Your task to perform on an android device: Open Chrome and go to settings Image 0: 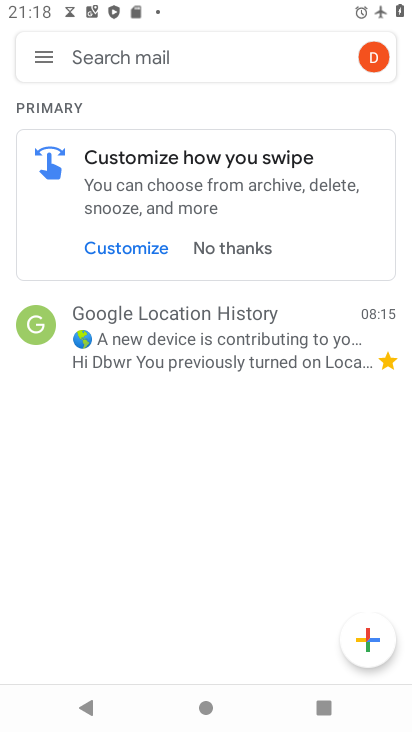
Step 0: click (50, 56)
Your task to perform on an android device: Open Chrome and go to settings Image 1: 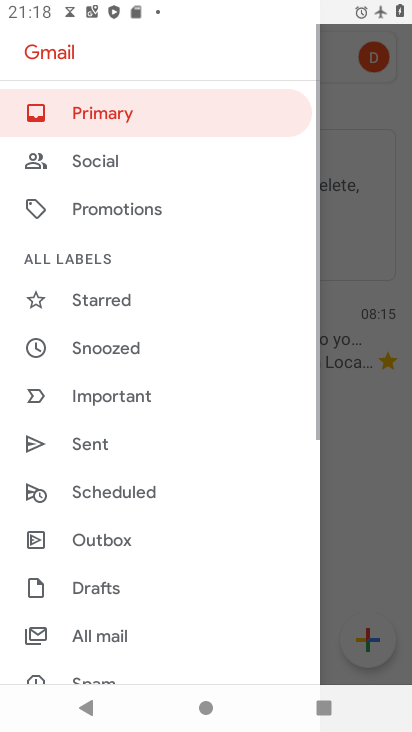
Step 1: press home button
Your task to perform on an android device: Open Chrome and go to settings Image 2: 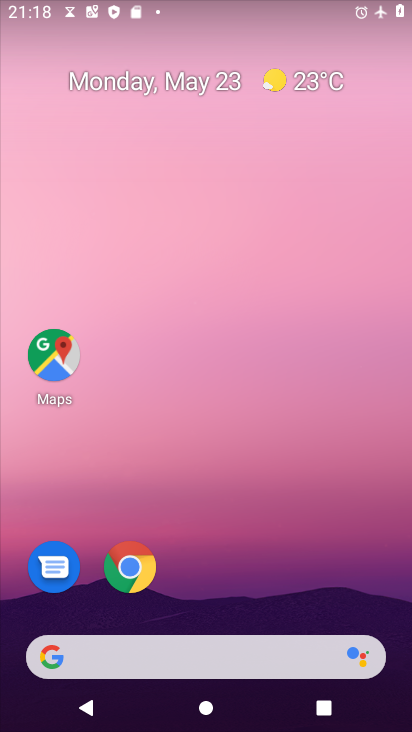
Step 2: click (139, 555)
Your task to perform on an android device: Open Chrome and go to settings Image 3: 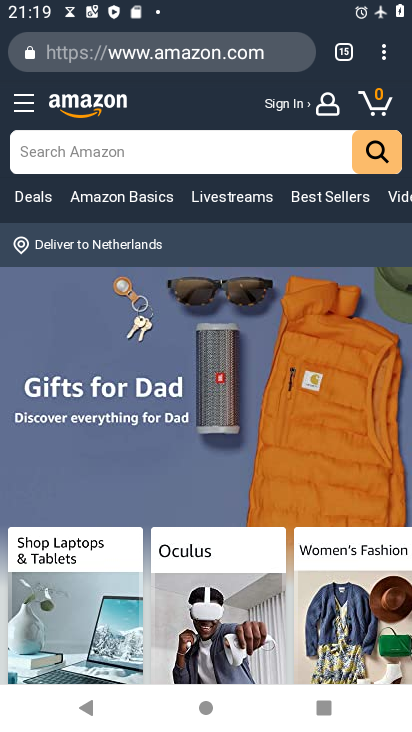
Step 3: click (383, 49)
Your task to perform on an android device: Open Chrome and go to settings Image 4: 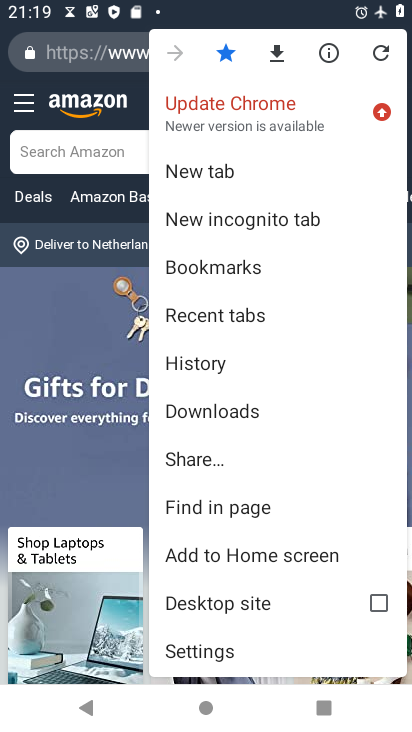
Step 4: click (215, 648)
Your task to perform on an android device: Open Chrome and go to settings Image 5: 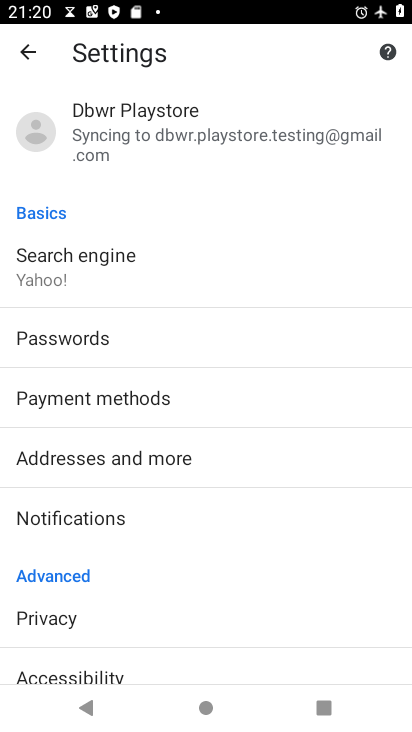
Step 5: task complete